Your task to perform on an android device: open app "Google Photos" Image 0: 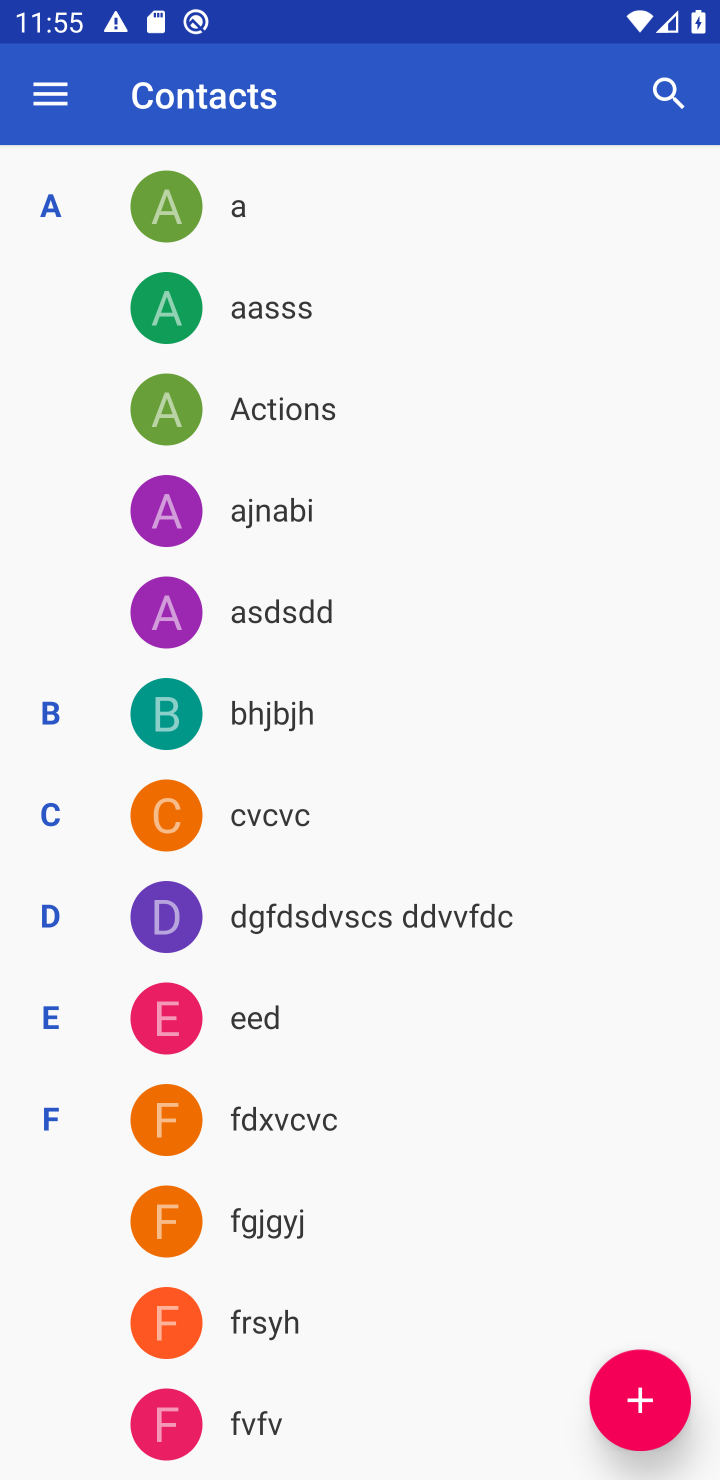
Step 0: press home button
Your task to perform on an android device: open app "Google Photos" Image 1: 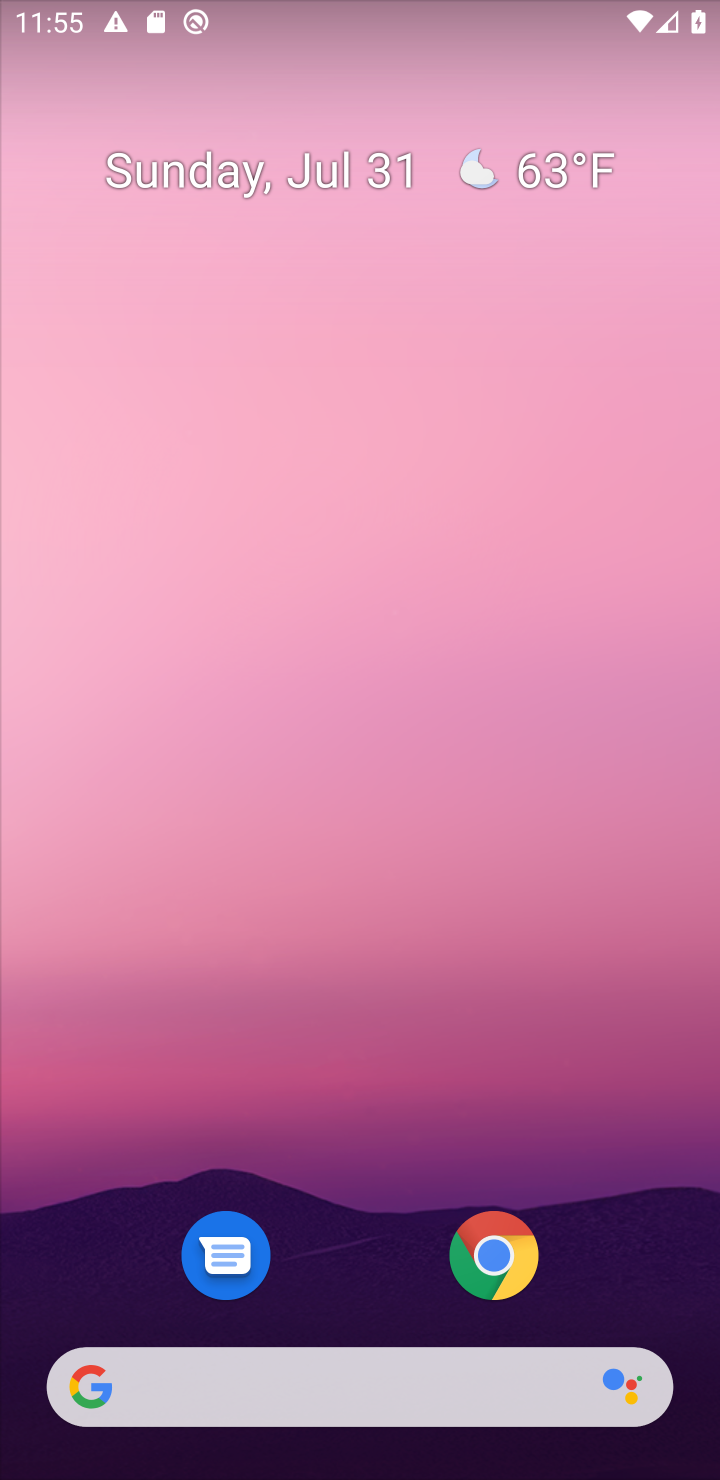
Step 1: drag from (573, 1188) to (441, 130)
Your task to perform on an android device: open app "Google Photos" Image 2: 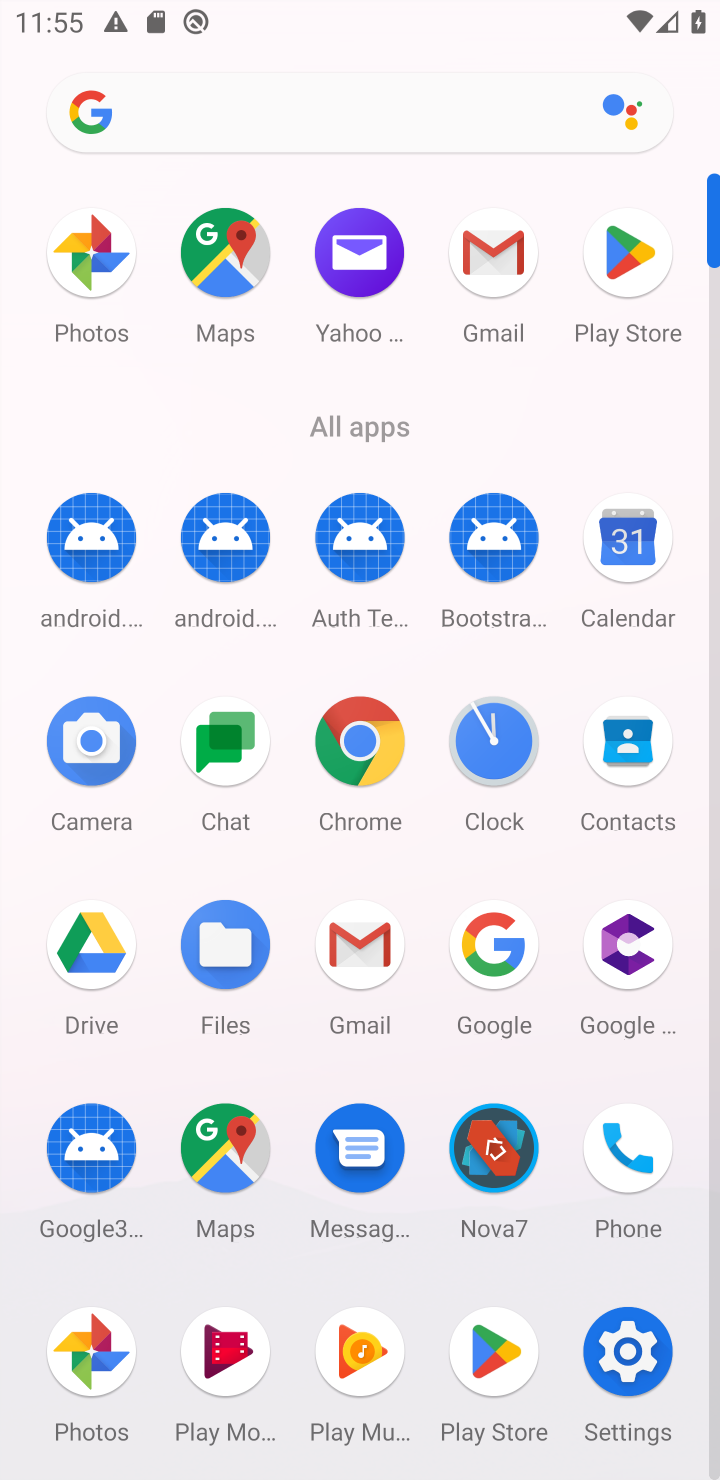
Step 2: click (71, 1346)
Your task to perform on an android device: open app "Google Photos" Image 3: 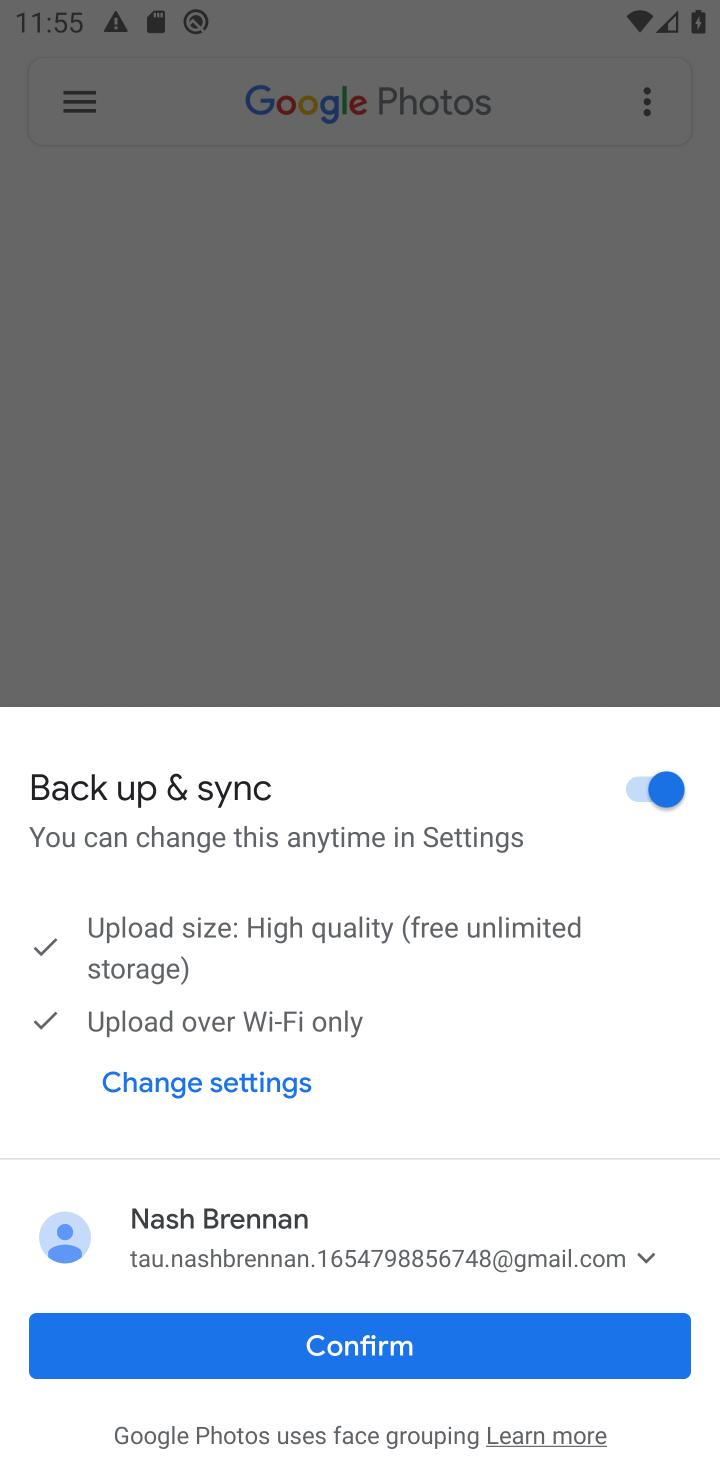
Step 3: task complete